Your task to perform on an android device: move an email to a new category in the gmail app Image 0: 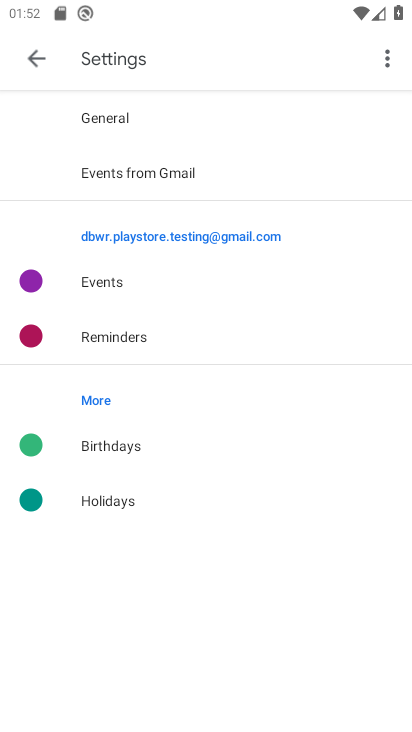
Step 0: press home button
Your task to perform on an android device: move an email to a new category in the gmail app Image 1: 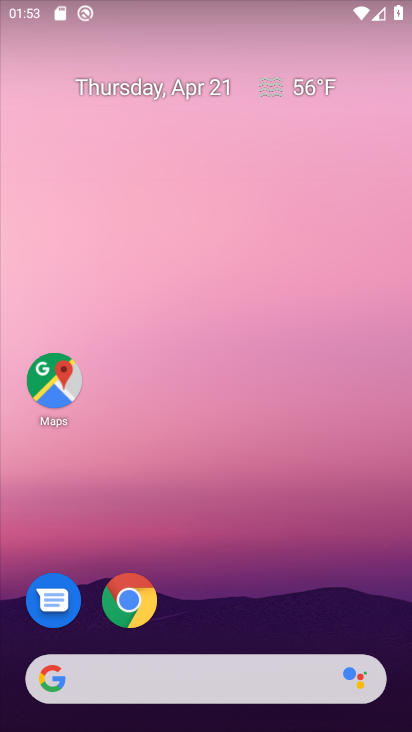
Step 1: drag from (275, 391) to (299, 163)
Your task to perform on an android device: move an email to a new category in the gmail app Image 2: 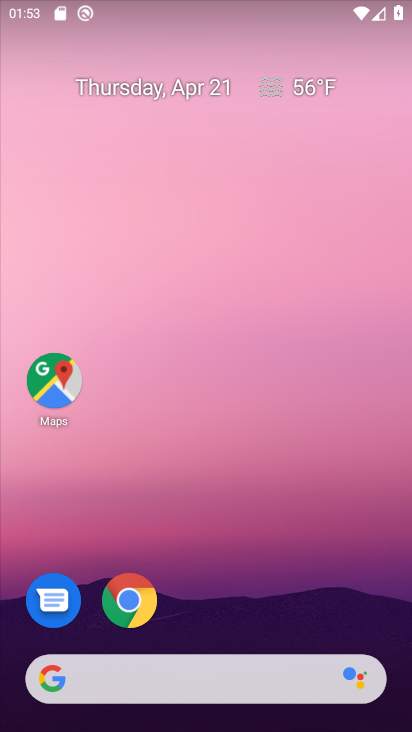
Step 2: drag from (245, 620) to (284, 149)
Your task to perform on an android device: move an email to a new category in the gmail app Image 3: 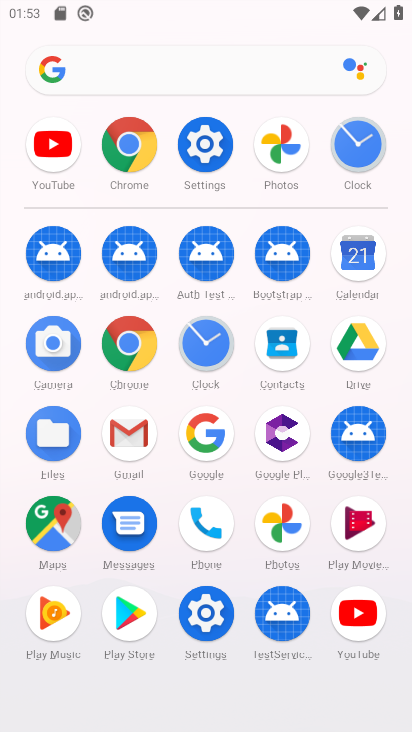
Step 3: click (135, 430)
Your task to perform on an android device: move an email to a new category in the gmail app Image 4: 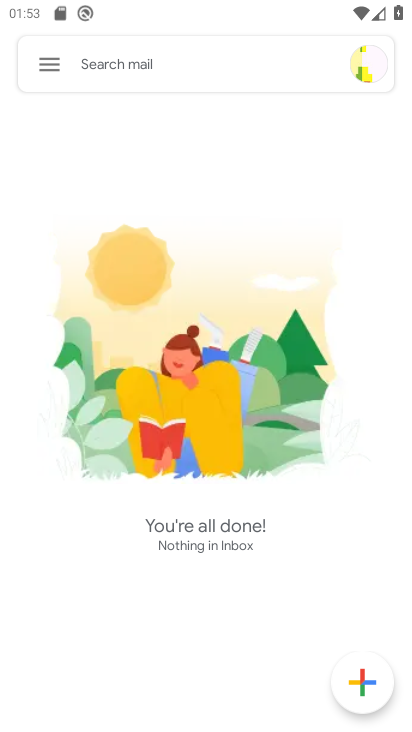
Step 4: click (48, 61)
Your task to perform on an android device: move an email to a new category in the gmail app Image 5: 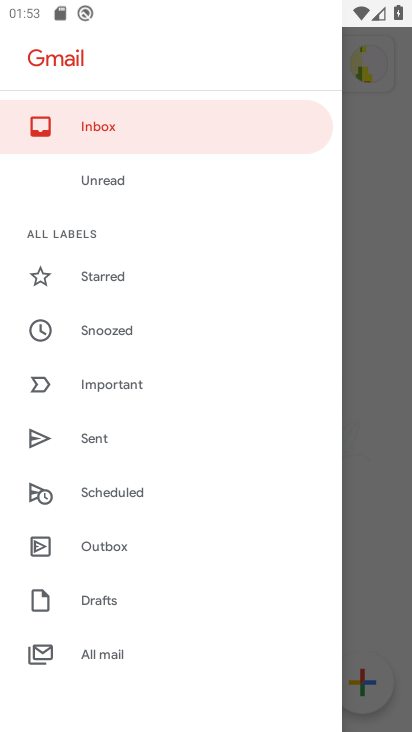
Step 5: click (160, 658)
Your task to perform on an android device: move an email to a new category in the gmail app Image 6: 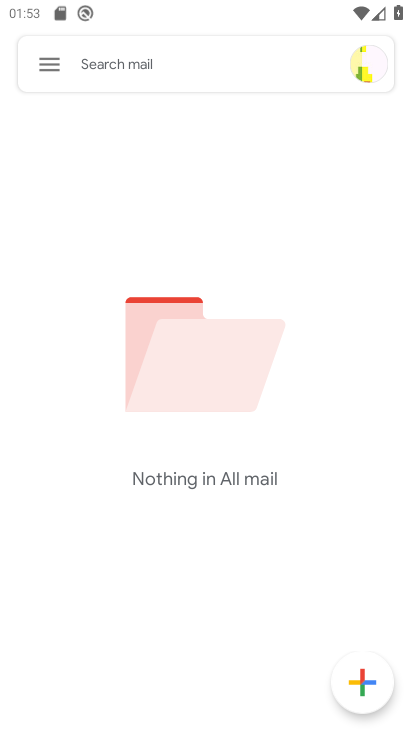
Step 6: task complete